Your task to perform on an android device: Search for "acer nitro" on ebay, select the first entry, add it to the cart, then select checkout. Image 0: 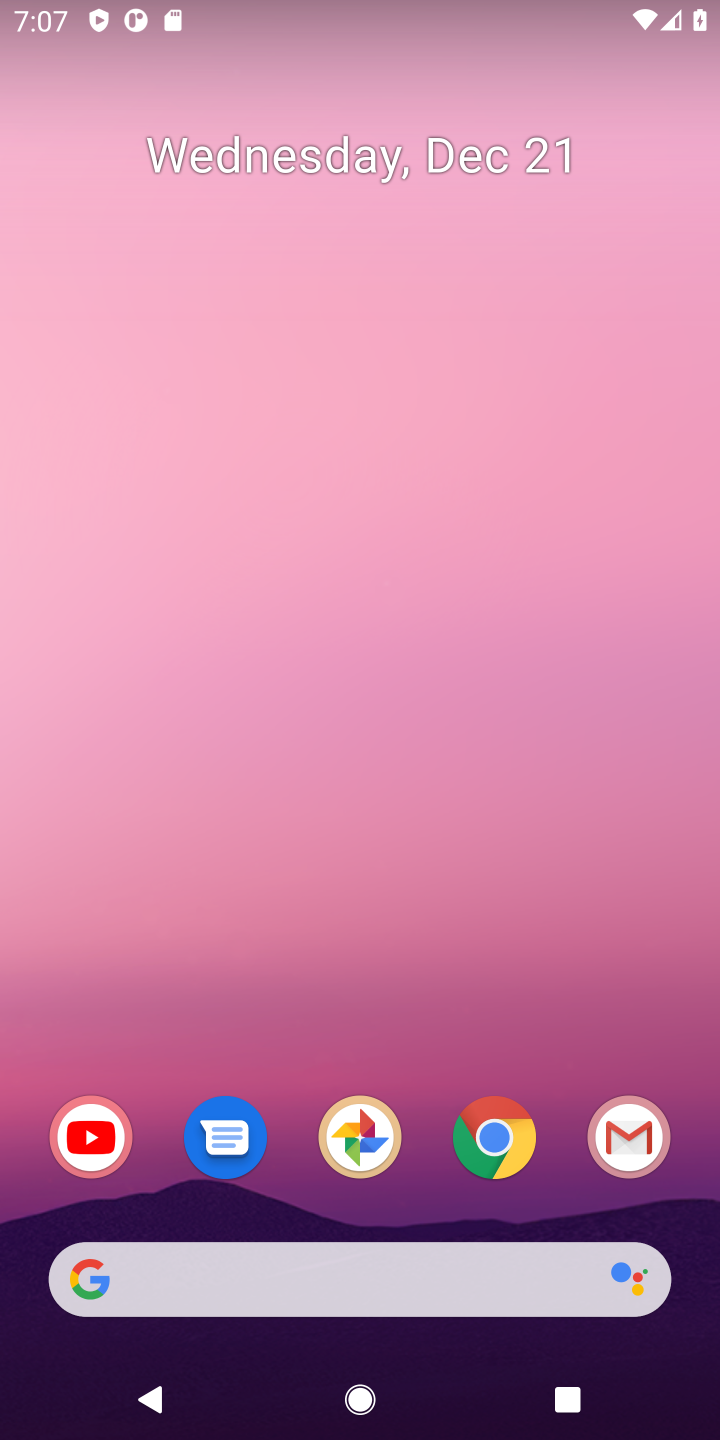
Step 0: click (497, 1139)
Your task to perform on an android device: Search for "acer nitro" on ebay, select the first entry, add it to the cart, then select checkout. Image 1: 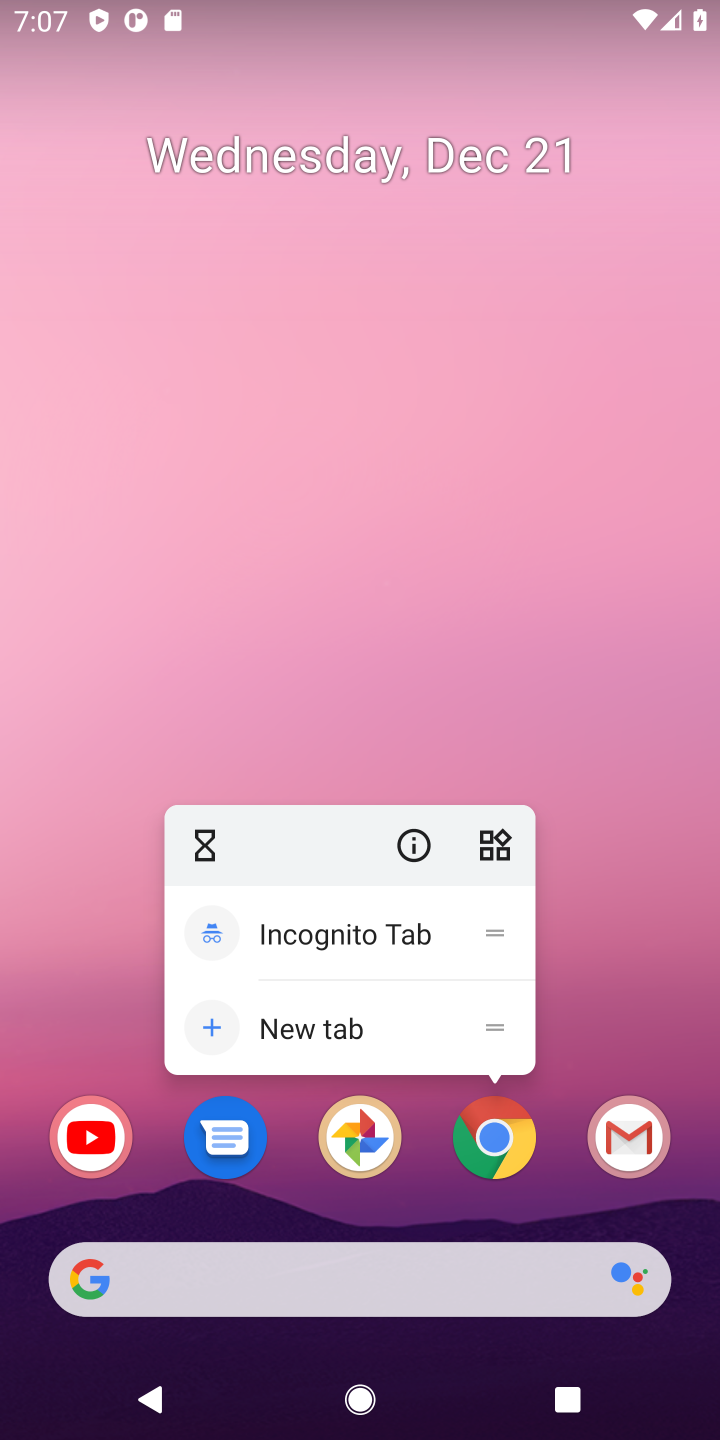
Step 1: click (497, 1139)
Your task to perform on an android device: Search for "acer nitro" on ebay, select the first entry, add it to the cart, then select checkout. Image 2: 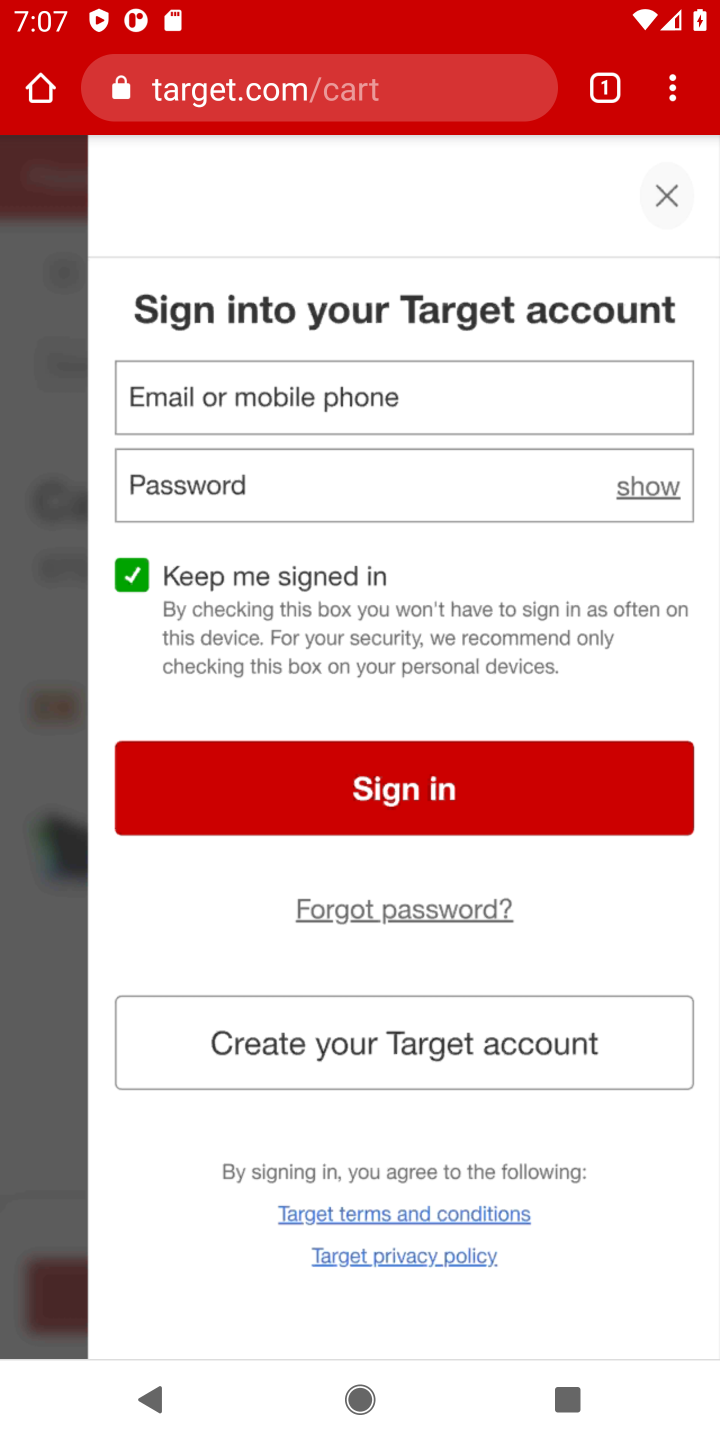
Step 2: click (213, 106)
Your task to perform on an android device: Search for "acer nitro" on ebay, select the first entry, add it to the cart, then select checkout. Image 3: 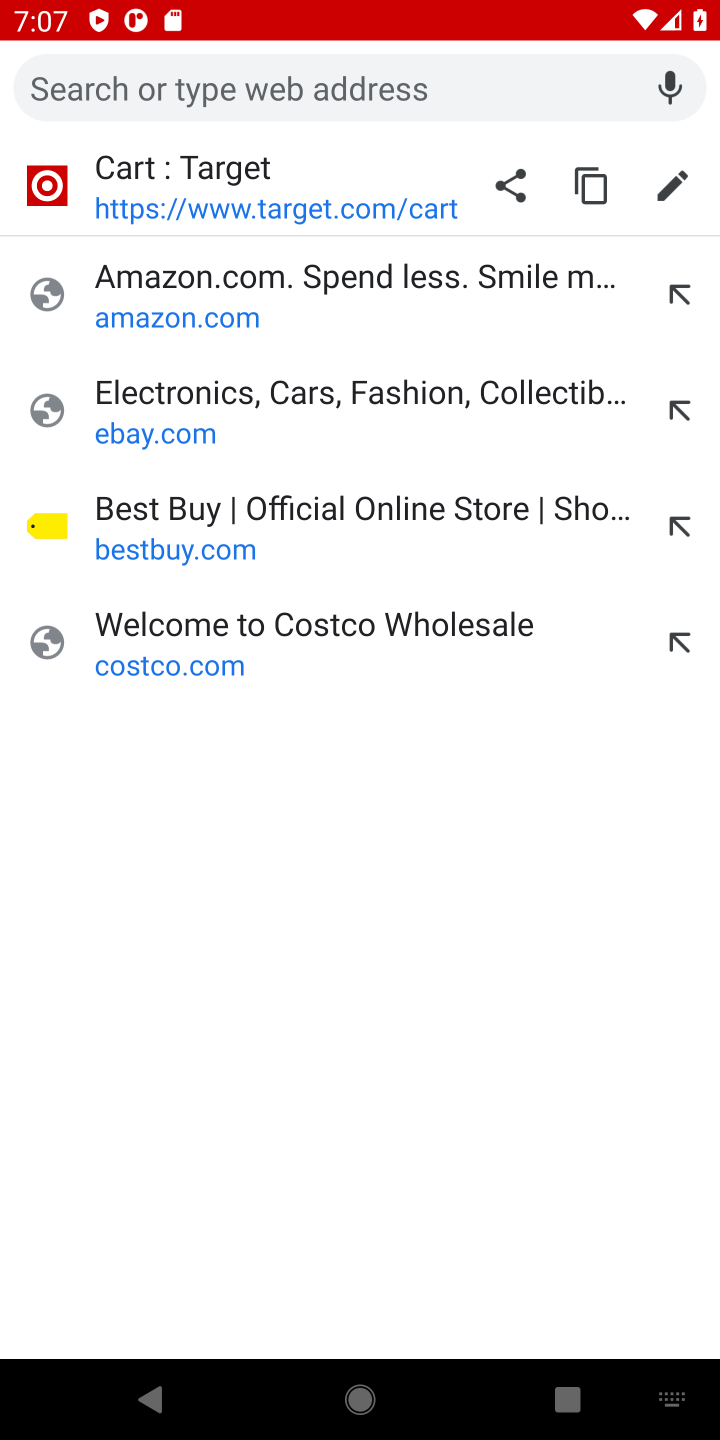
Step 3: click (132, 411)
Your task to perform on an android device: Search for "acer nitro" on ebay, select the first entry, add it to the cart, then select checkout. Image 4: 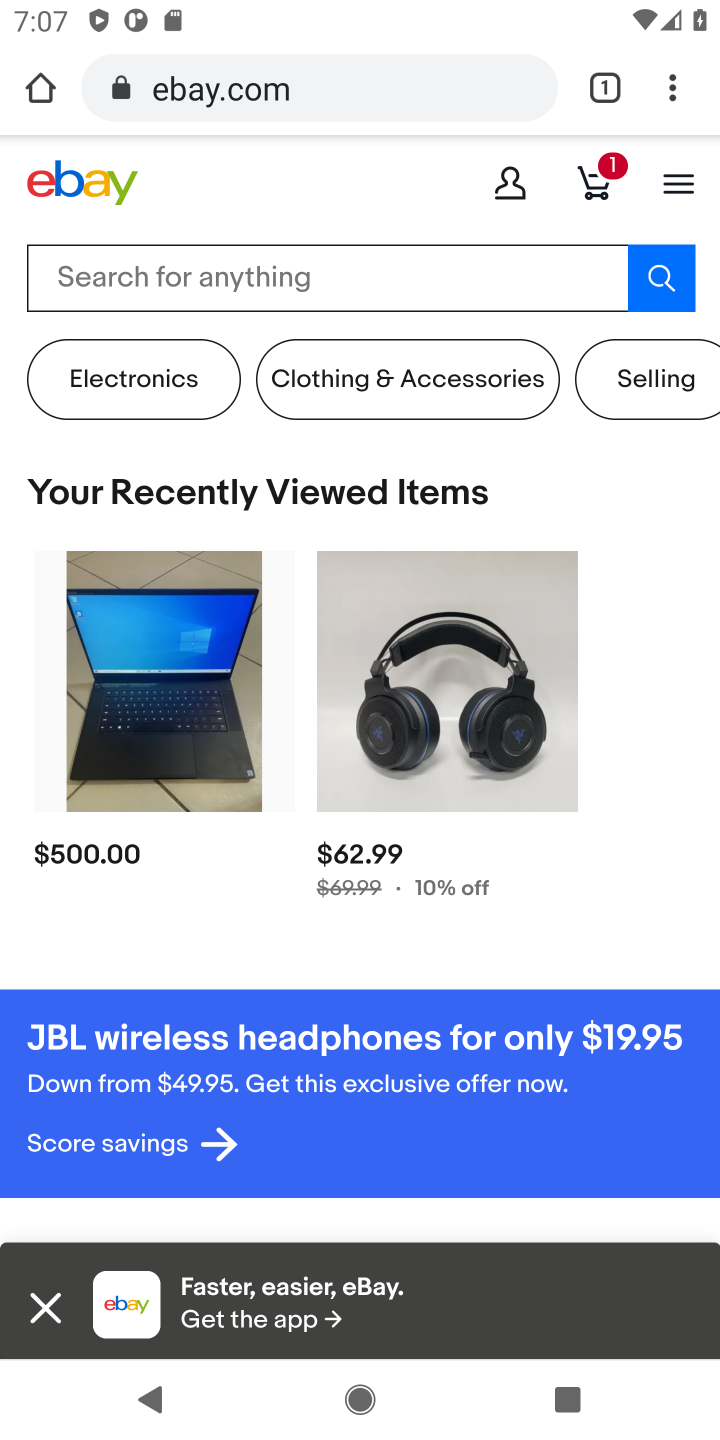
Step 4: click (67, 294)
Your task to perform on an android device: Search for "acer nitro" on ebay, select the first entry, add it to the cart, then select checkout. Image 5: 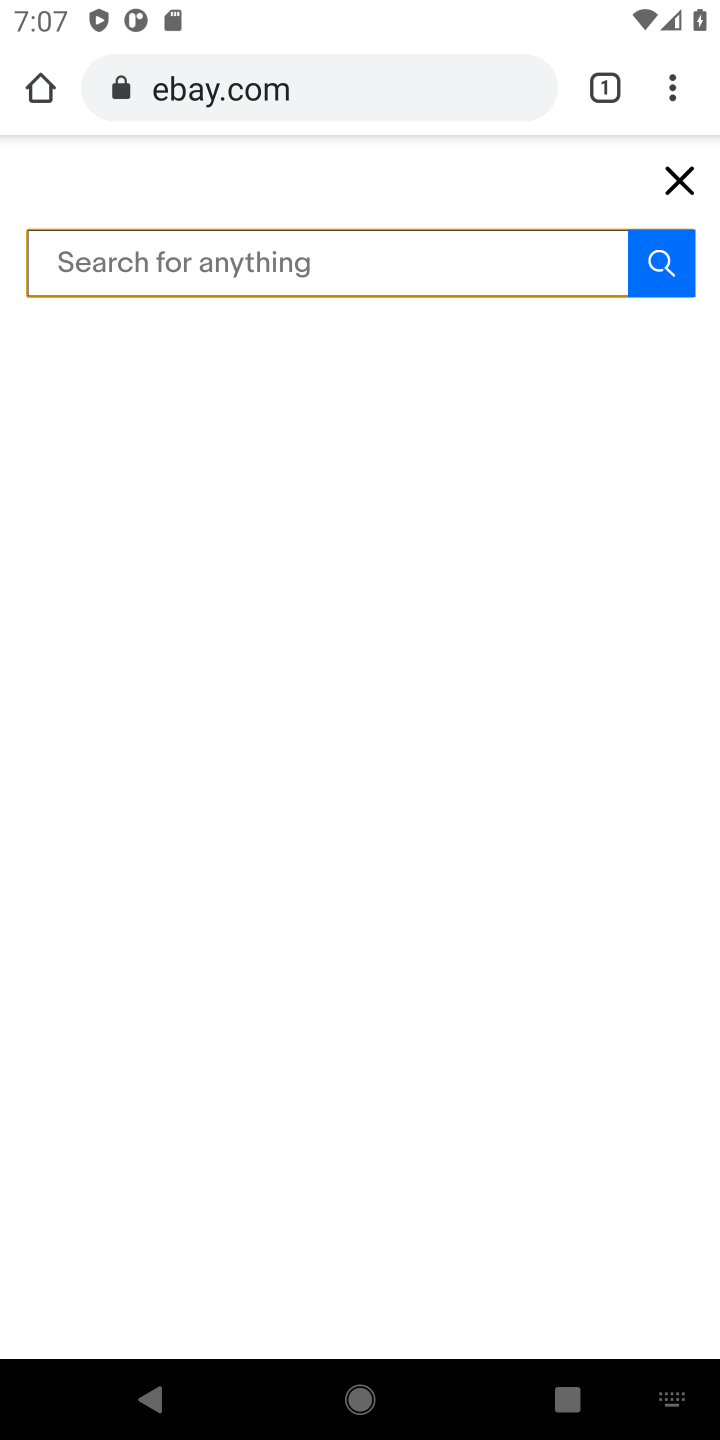
Step 5: type "acer nitro"
Your task to perform on an android device: Search for "acer nitro" on ebay, select the first entry, add it to the cart, then select checkout. Image 6: 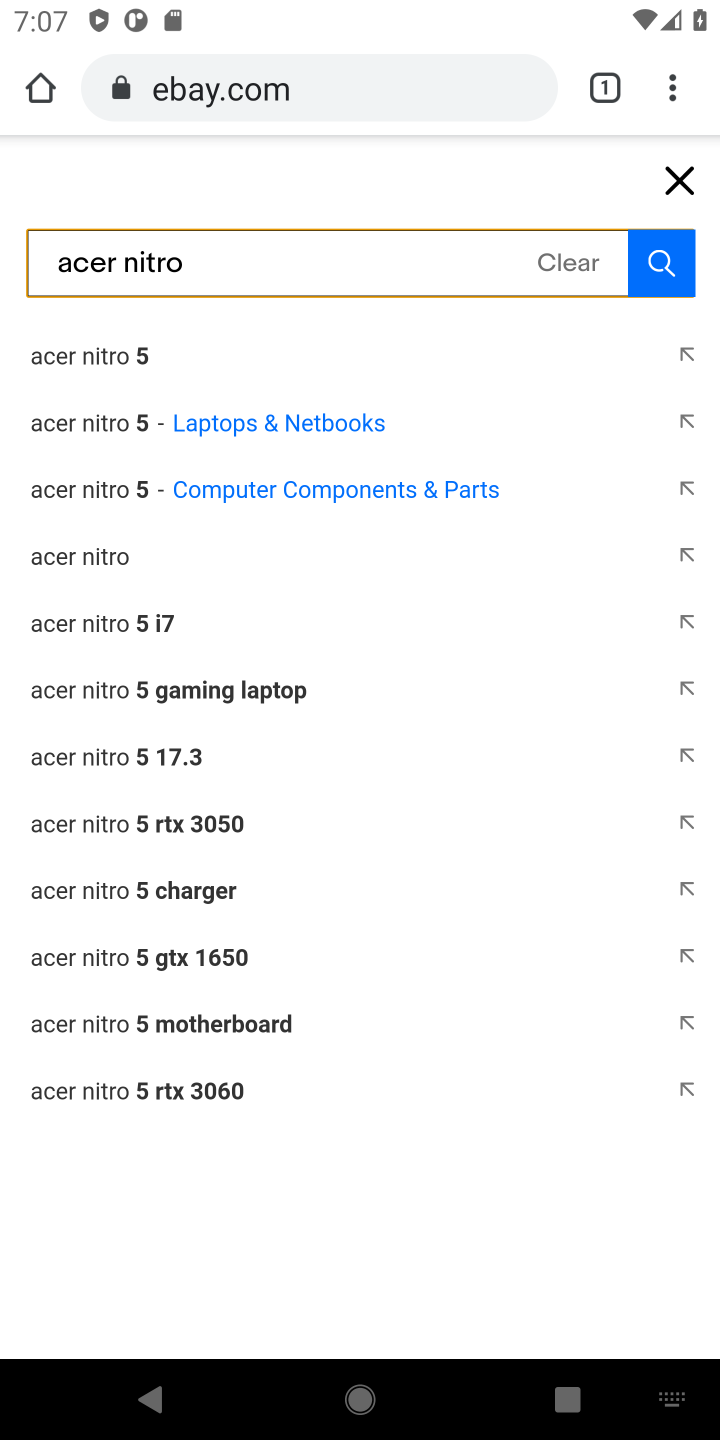
Step 6: click (57, 566)
Your task to perform on an android device: Search for "acer nitro" on ebay, select the first entry, add it to the cart, then select checkout. Image 7: 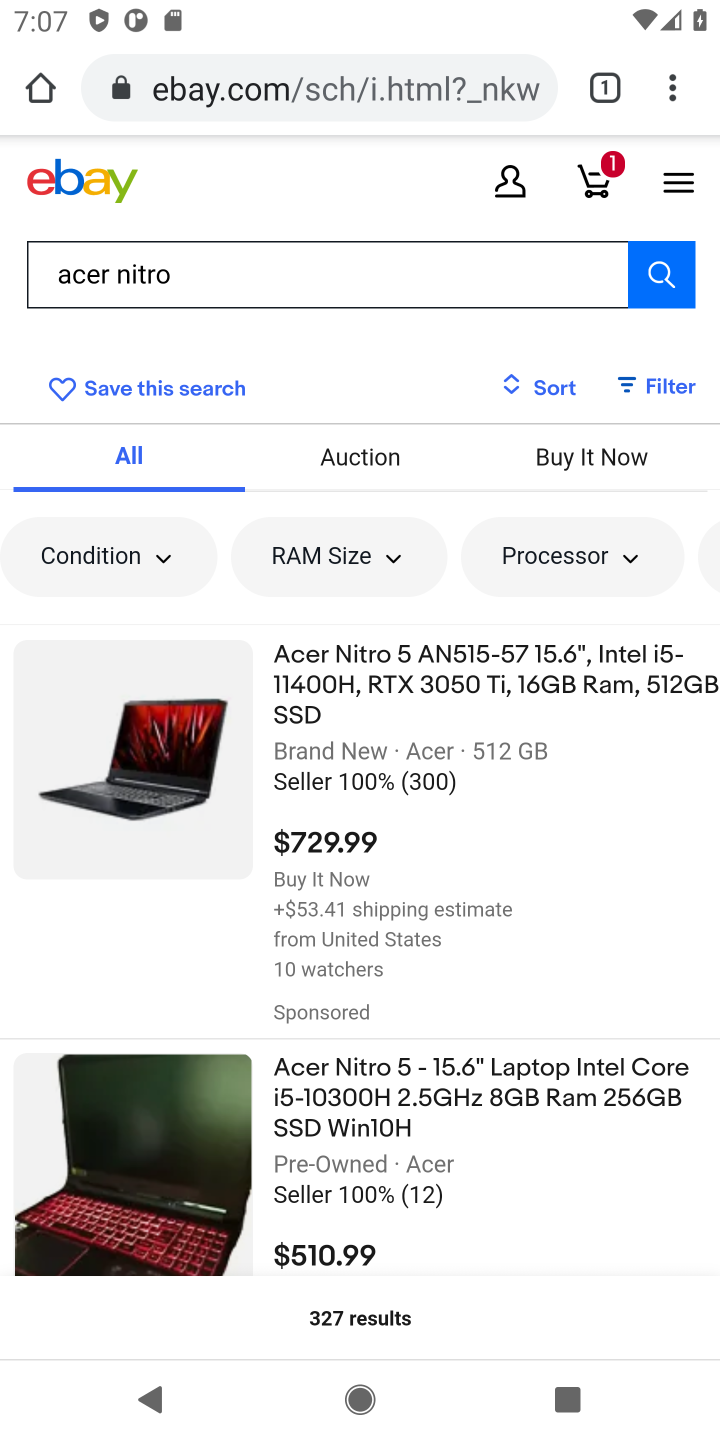
Step 7: click (389, 693)
Your task to perform on an android device: Search for "acer nitro" on ebay, select the first entry, add it to the cart, then select checkout. Image 8: 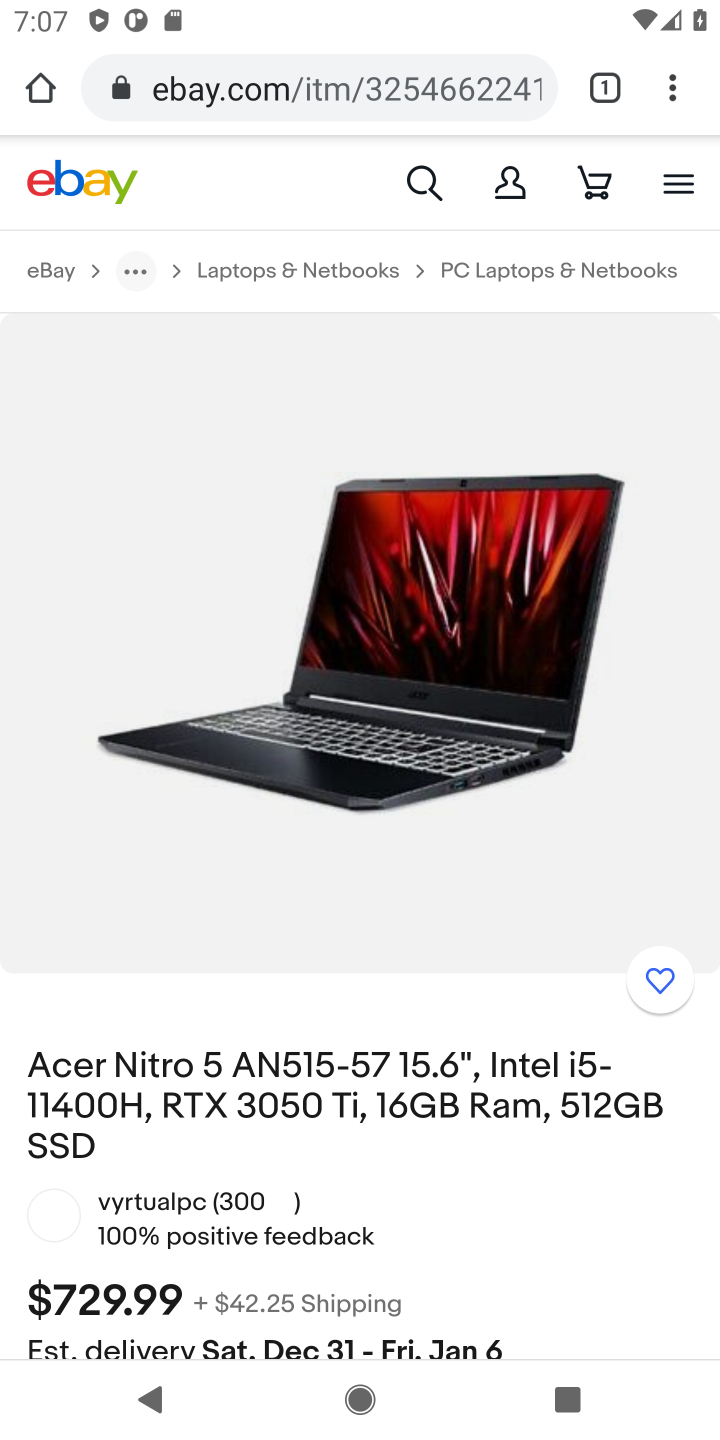
Step 8: drag from (326, 1076) to (294, 519)
Your task to perform on an android device: Search for "acer nitro" on ebay, select the first entry, add it to the cart, then select checkout. Image 9: 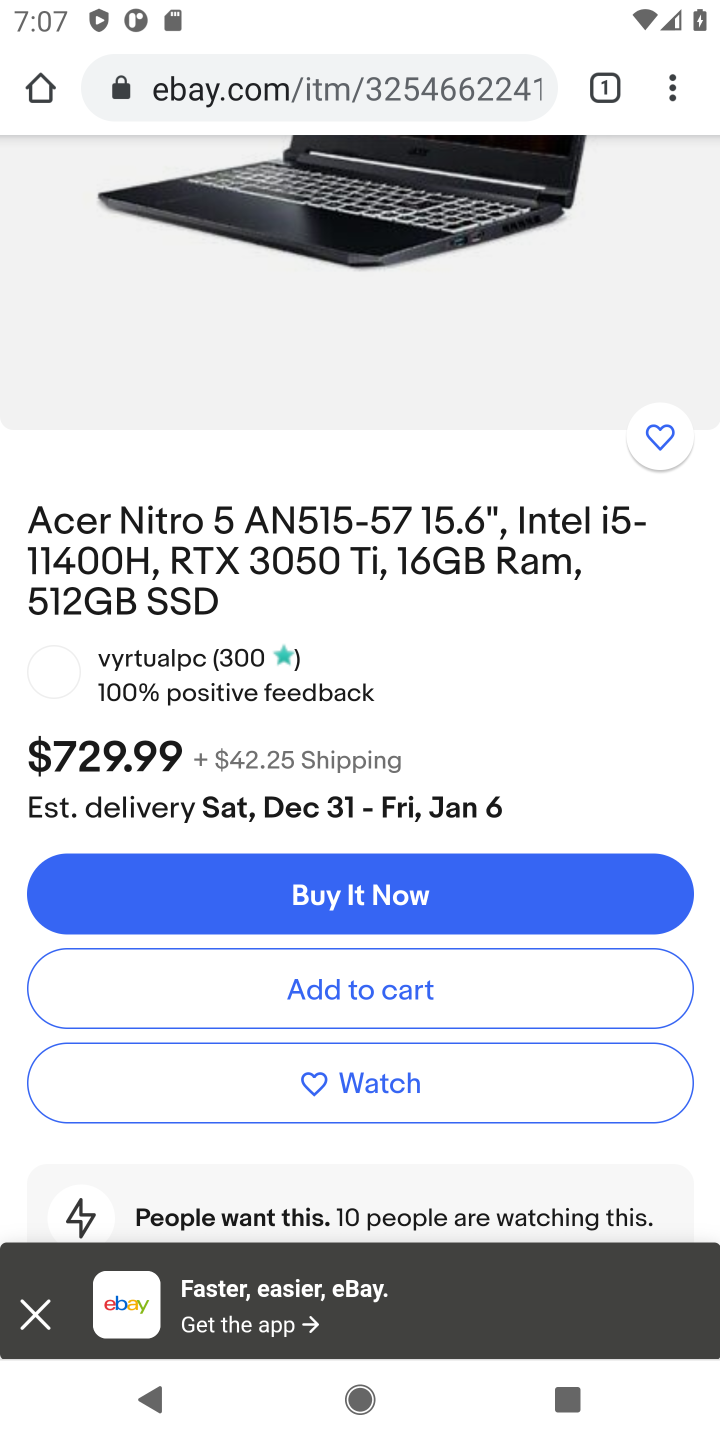
Step 9: click (321, 984)
Your task to perform on an android device: Search for "acer nitro" on ebay, select the first entry, add it to the cart, then select checkout. Image 10: 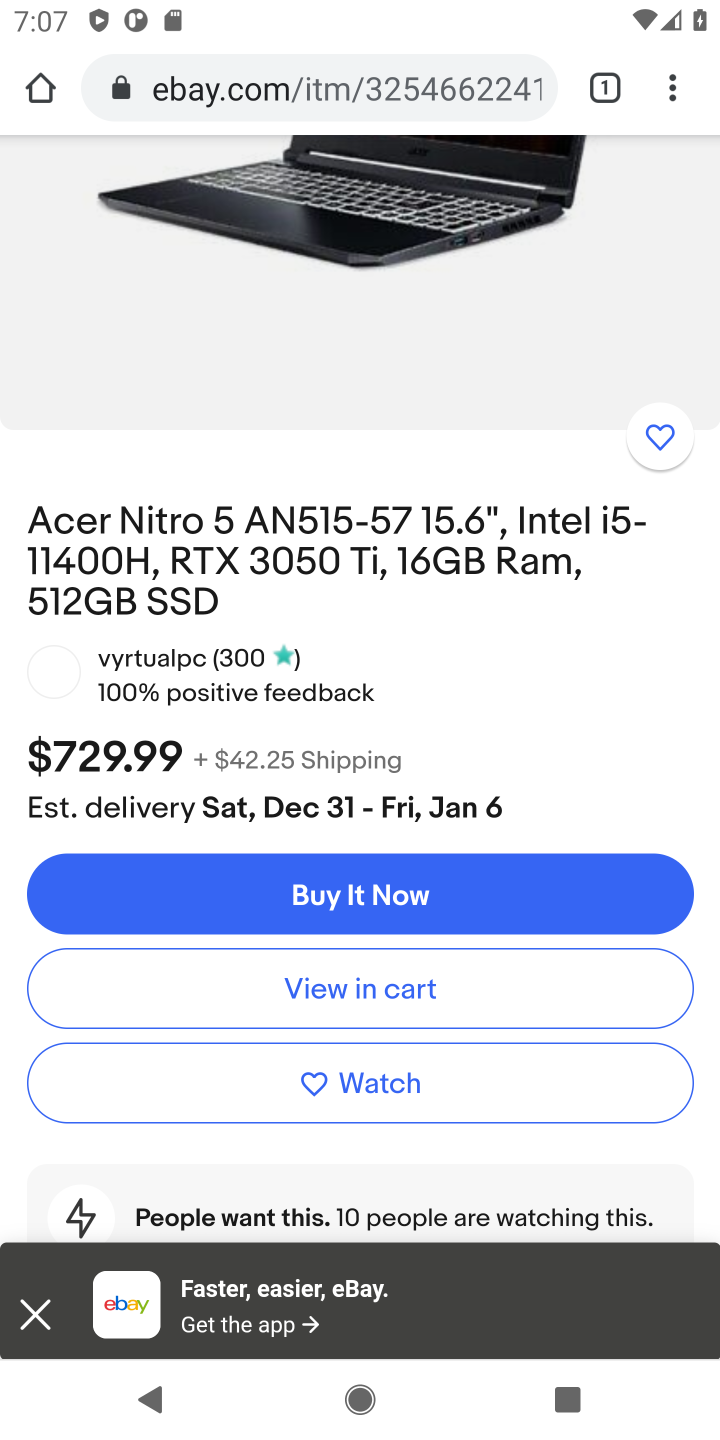
Step 10: click (321, 987)
Your task to perform on an android device: Search for "acer nitro" on ebay, select the first entry, add it to the cart, then select checkout. Image 11: 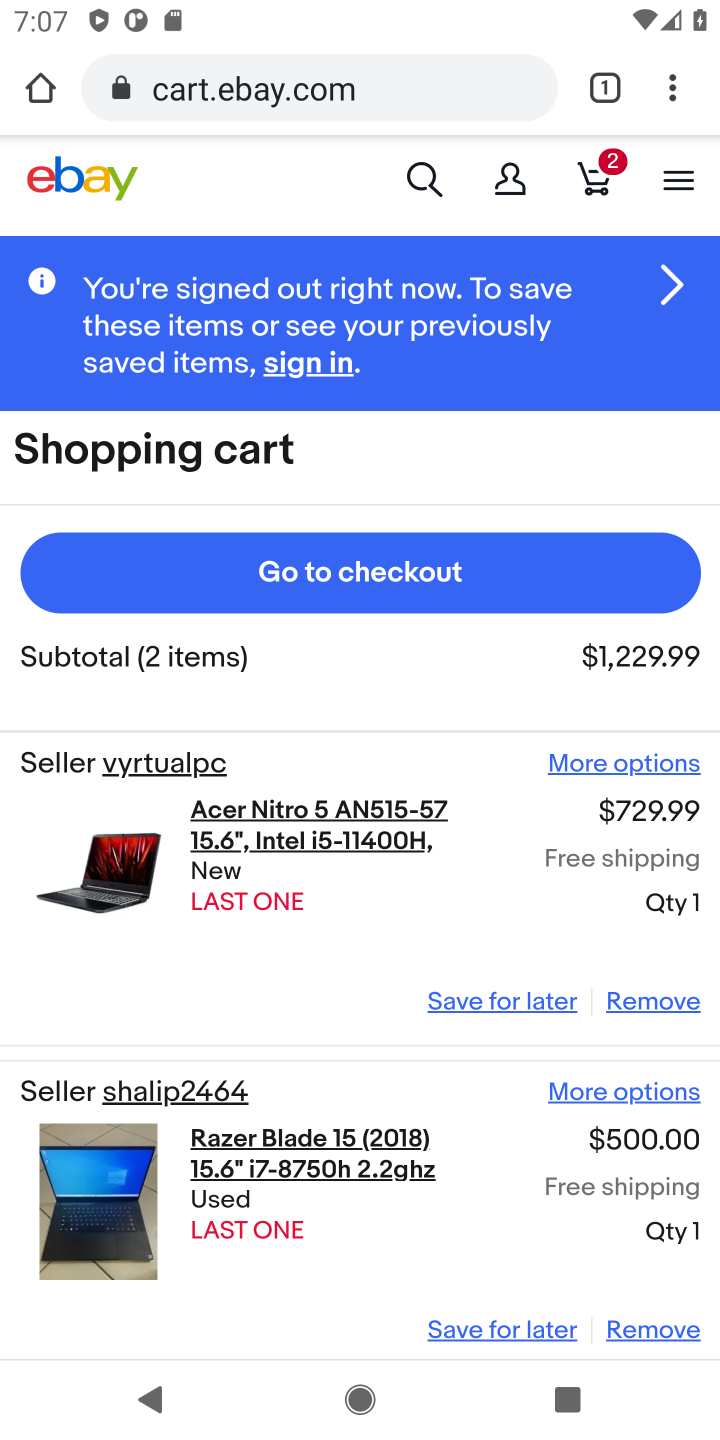
Step 11: click (313, 587)
Your task to perform on an android device: Search for "acer nitro" on ebay, select the first entry, add it to the cart, then select checkout. Image 12: 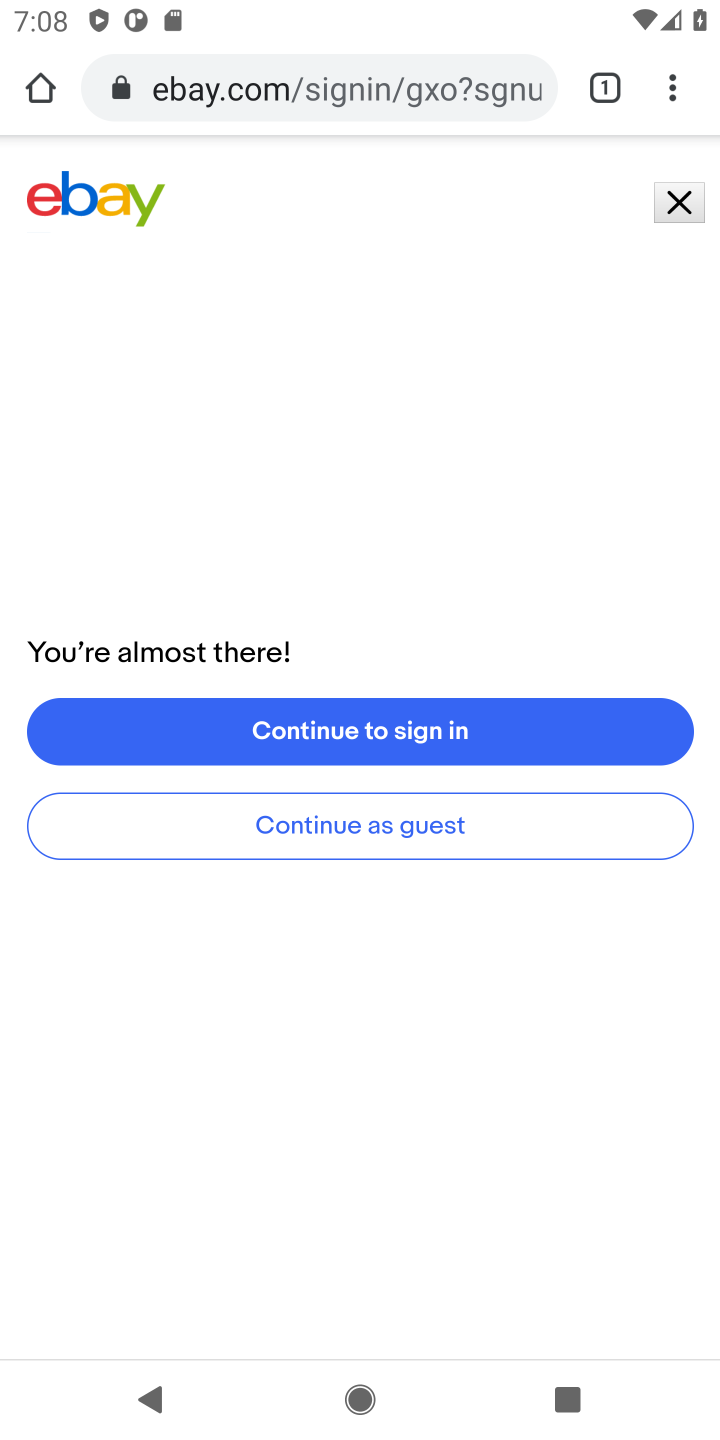
Step 12: task complete